Your task to perform on an android device: Toggle the flashlight Image 0: 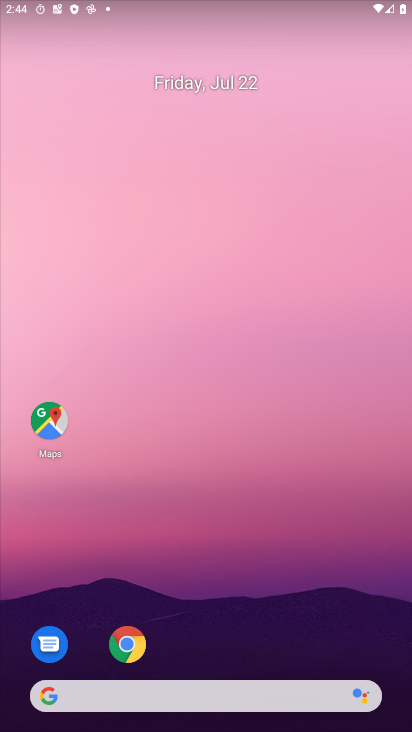
Step 0: drag from (240, 692) to (324, 140)
Your task to perform on an android device: Toggle the flashlight Image 1: 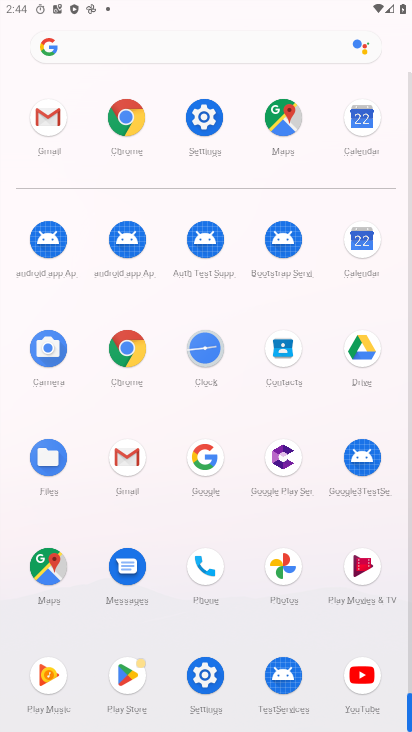
Step 1: task complete